Your task to perform on an android device: clear history in the chrome app Image 0: 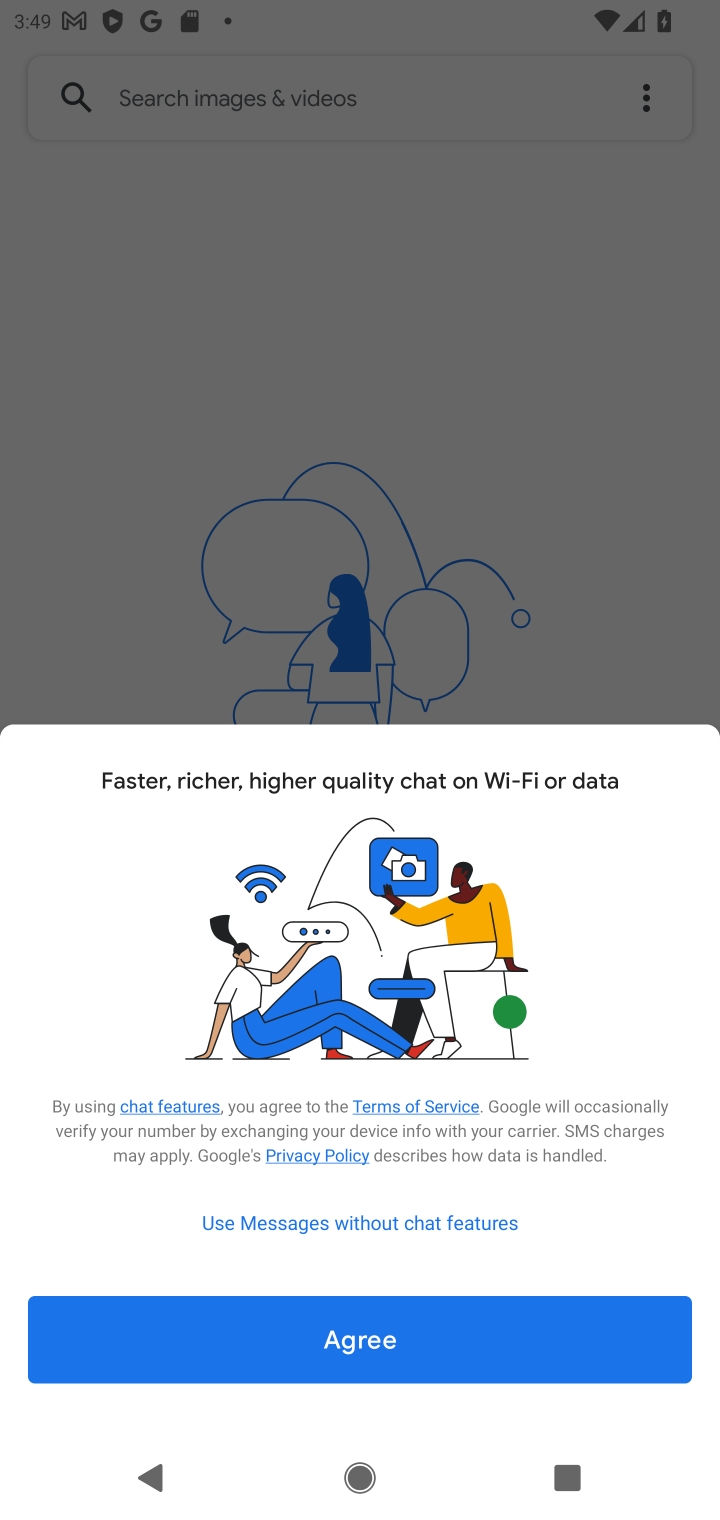
Step 0: press home button
Your task to perform on an android device: clear history in the chrome app Image 1: 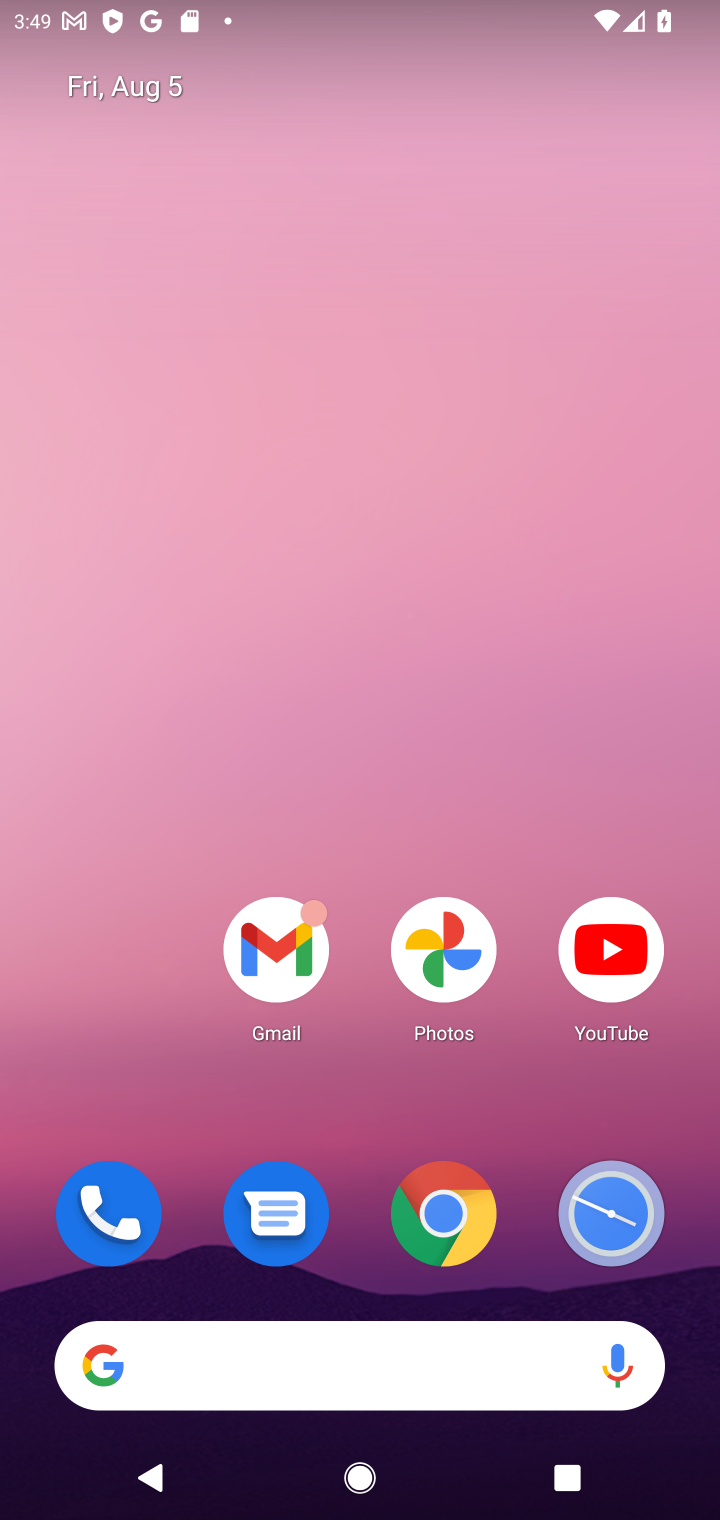
Step 1: click (469, 1187)
Your task to perform on an android device: clear history in the chrome app Image 2: 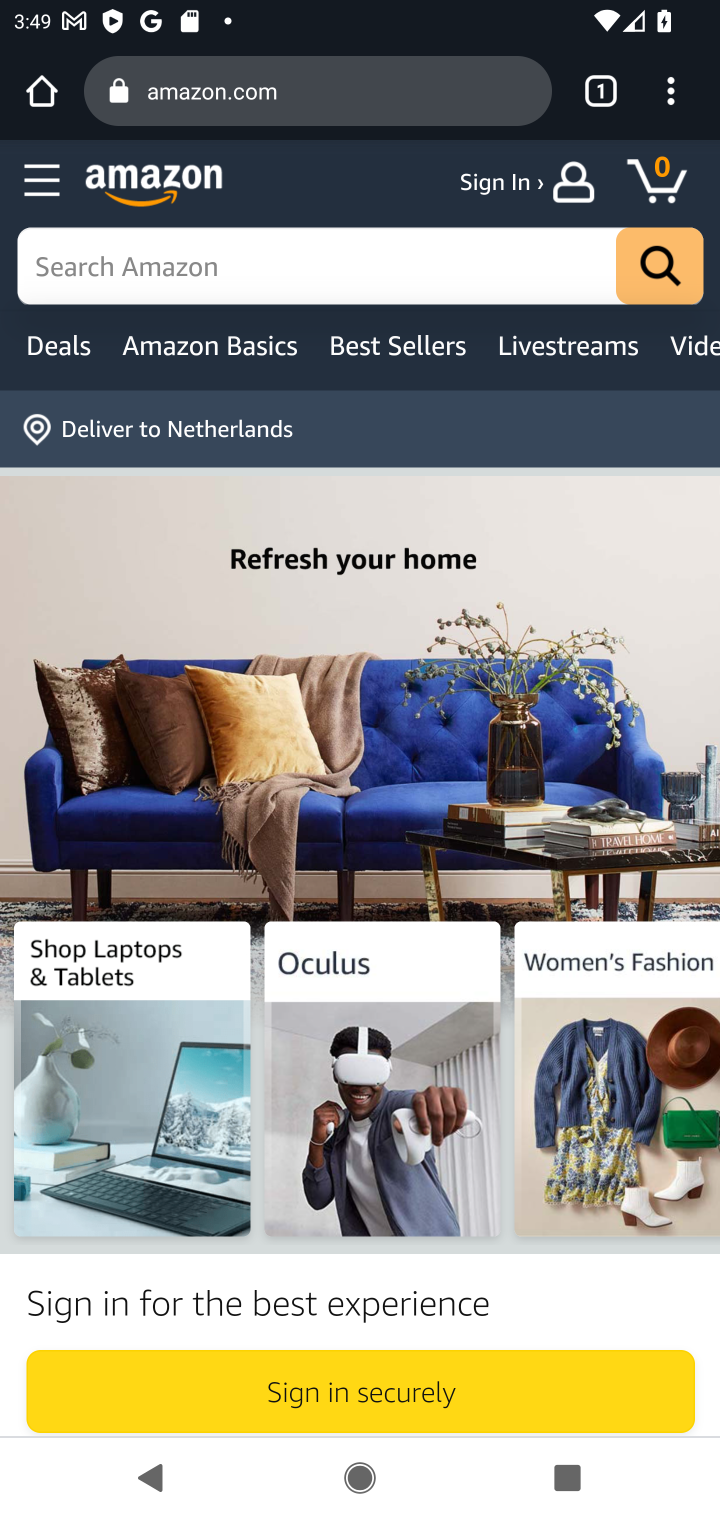
Step 2: click (669, 115)
Your task to perform on an android device: clear history in the chrome app Image 3: 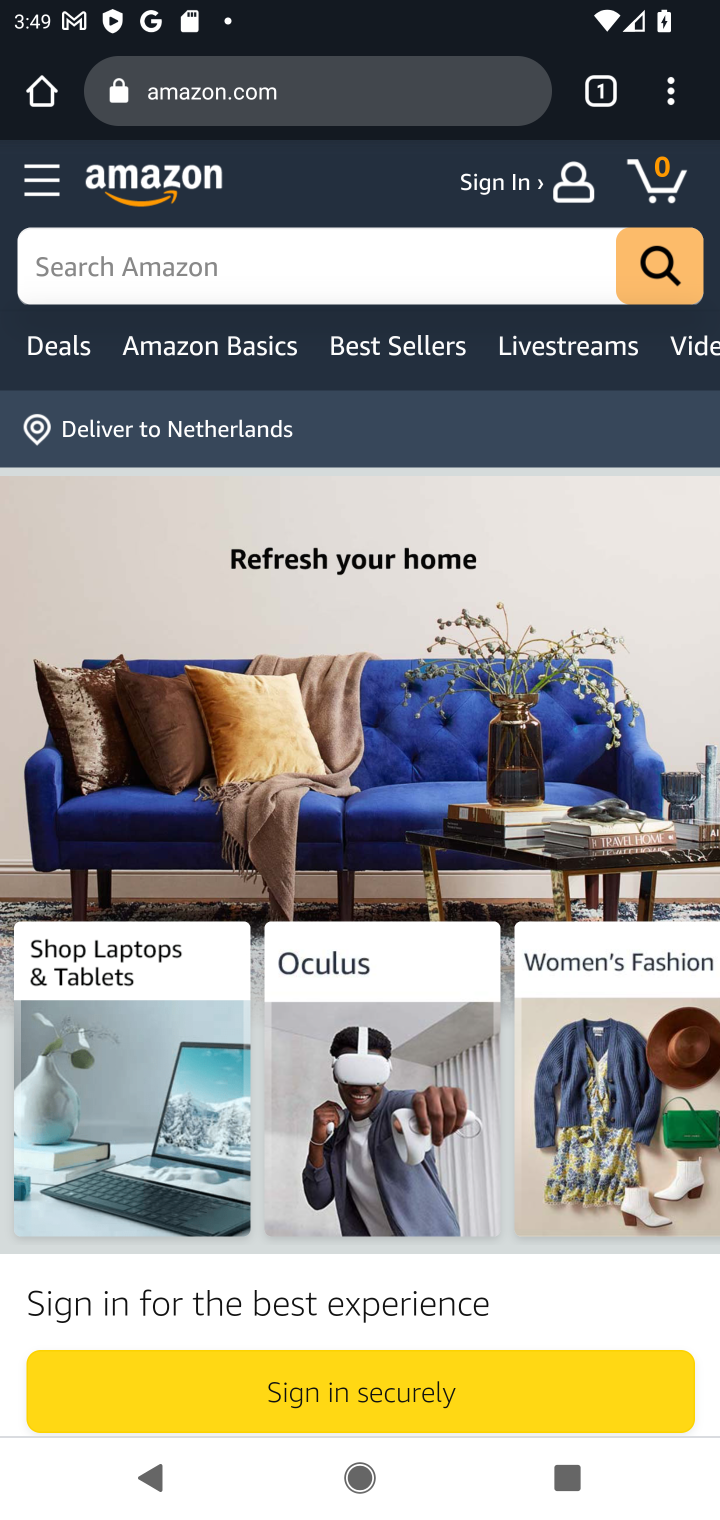
Step 3: click (661, 80)
Your task to perform on an android device: clear history in the chrome app Image 4: 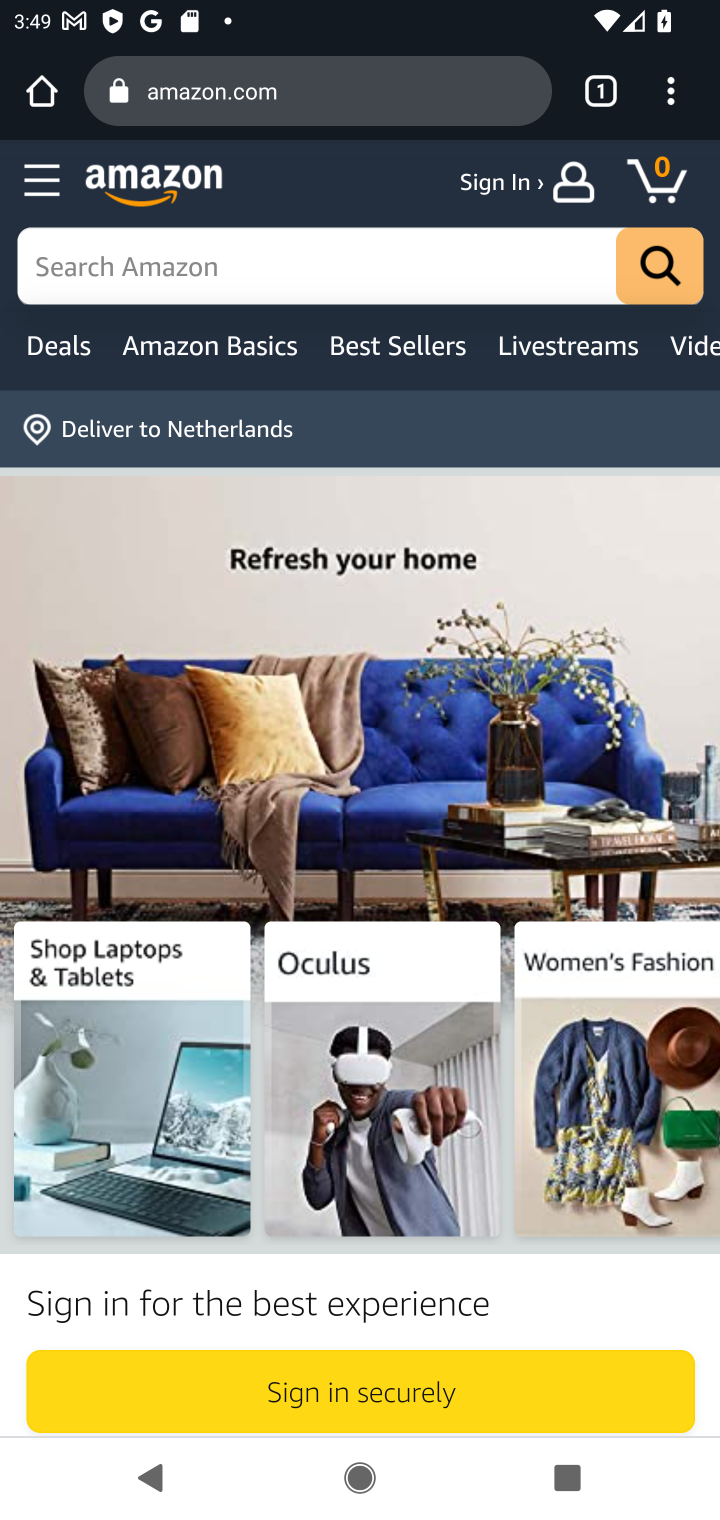
Step 4: task complete